Your task to perform on an android device: change the clock display to digital Image 0: 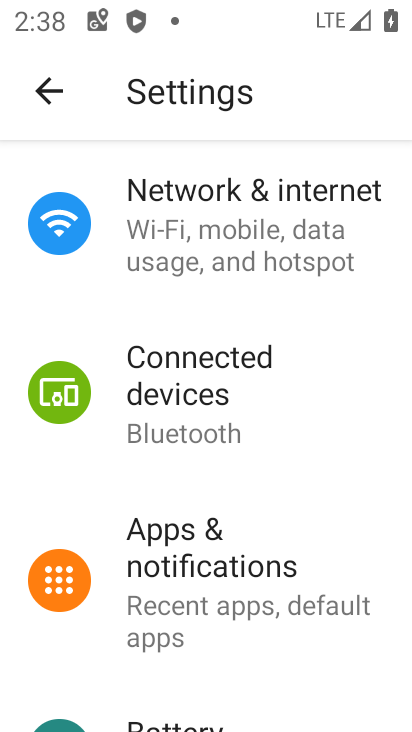
Step 0: press back button
Your task to perform on an android device: change the clock display to digital Image 1: 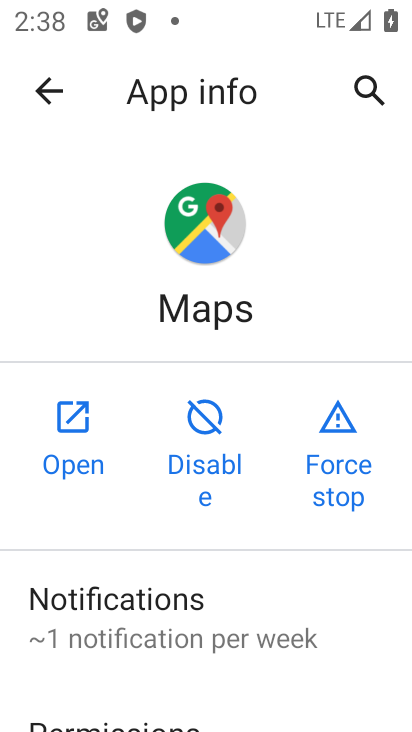
Step 1: press home button
Your task to perform on an android device: change the clock display to digital Image 2: 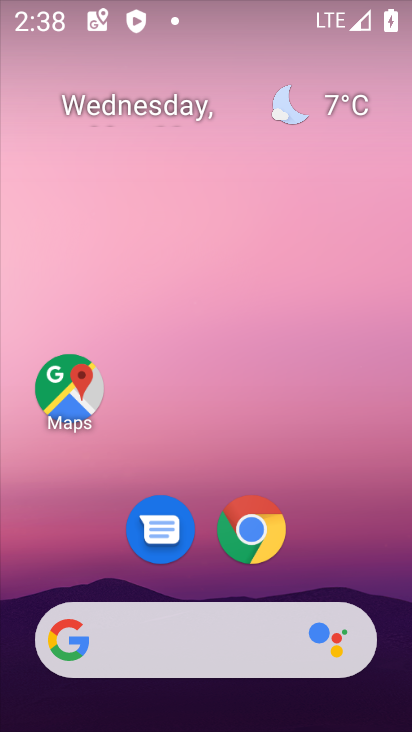
Step 2: drag from (4, 451) to (215, 175)
Your task to perform on an android device: change the clock display to digital Image 3: 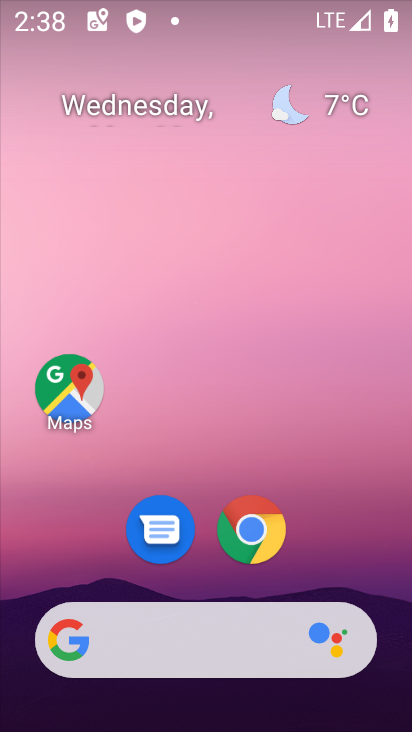
Step 3: drag from (46, 629) to (392, 75)
Your task to perform on an android device: change the clock display to digital Image 4: 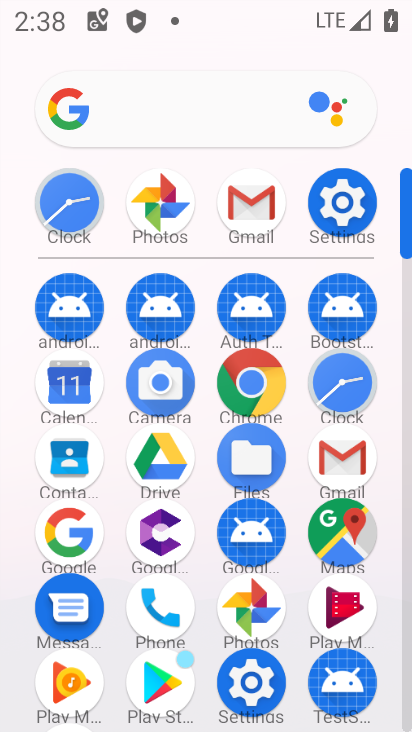
Step 4: click (317, 399)
Your task to perform on an android device: change the clock display to digital Image 5: 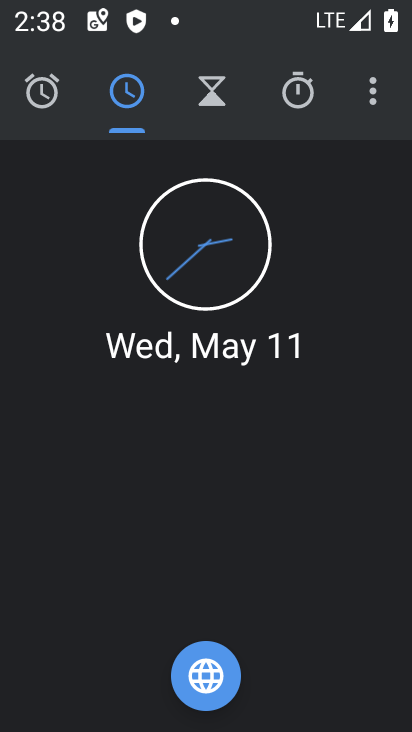
Step 5: click (379, 93)
Your task to perform on an android device: change the clock display to digital Image 6: 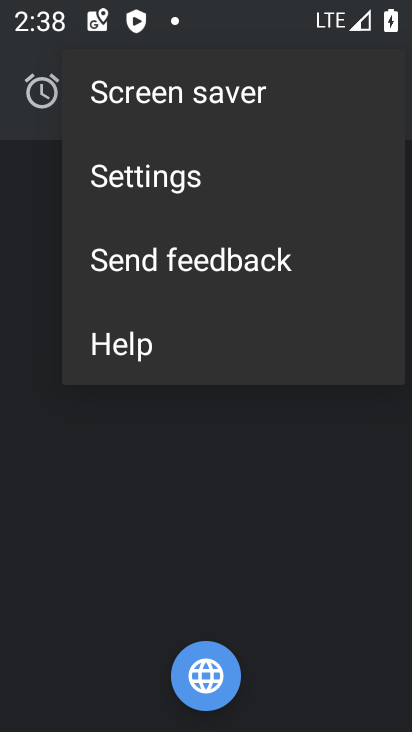
Step 6: click (215, 162)
Your task to perform on an android device: change the clock display to digital Image 7: 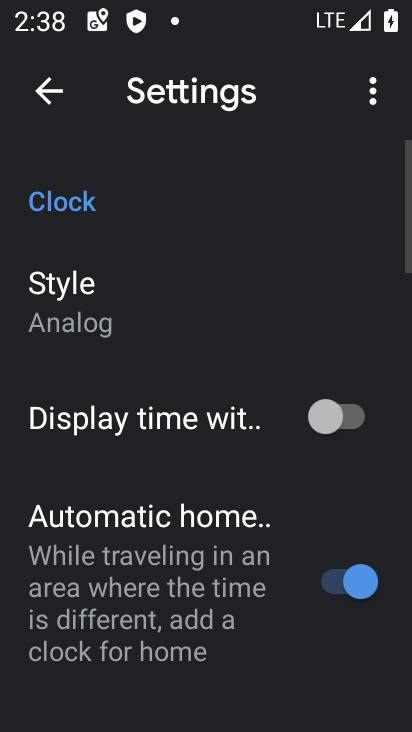
Step 7: click (142, 288)
Your task to perform on an android device: change the clock display to digital Image 8: 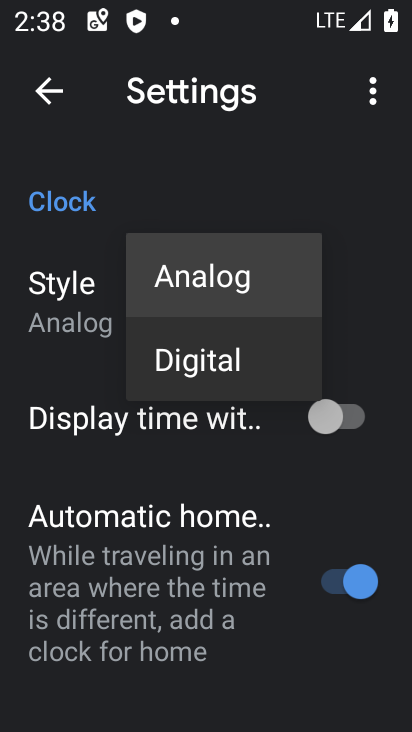
Step 8: click (203, 364)
Your task to perform on an android device: change the clock display to digital Image 9: 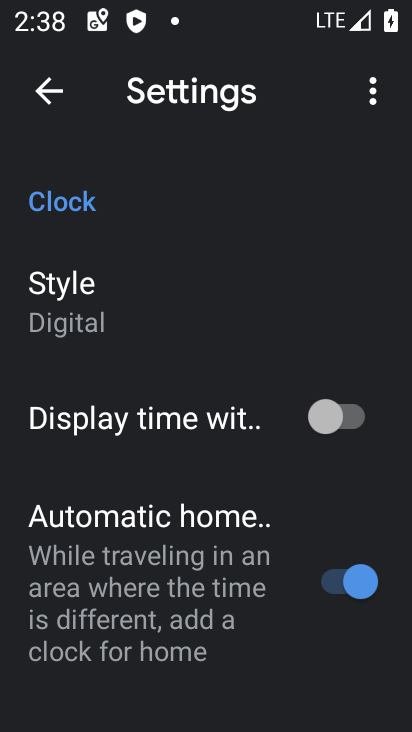
Step 9: task complete